Your task to perform on an android device: Search for vegetarian restaurants on Maps Image 0: 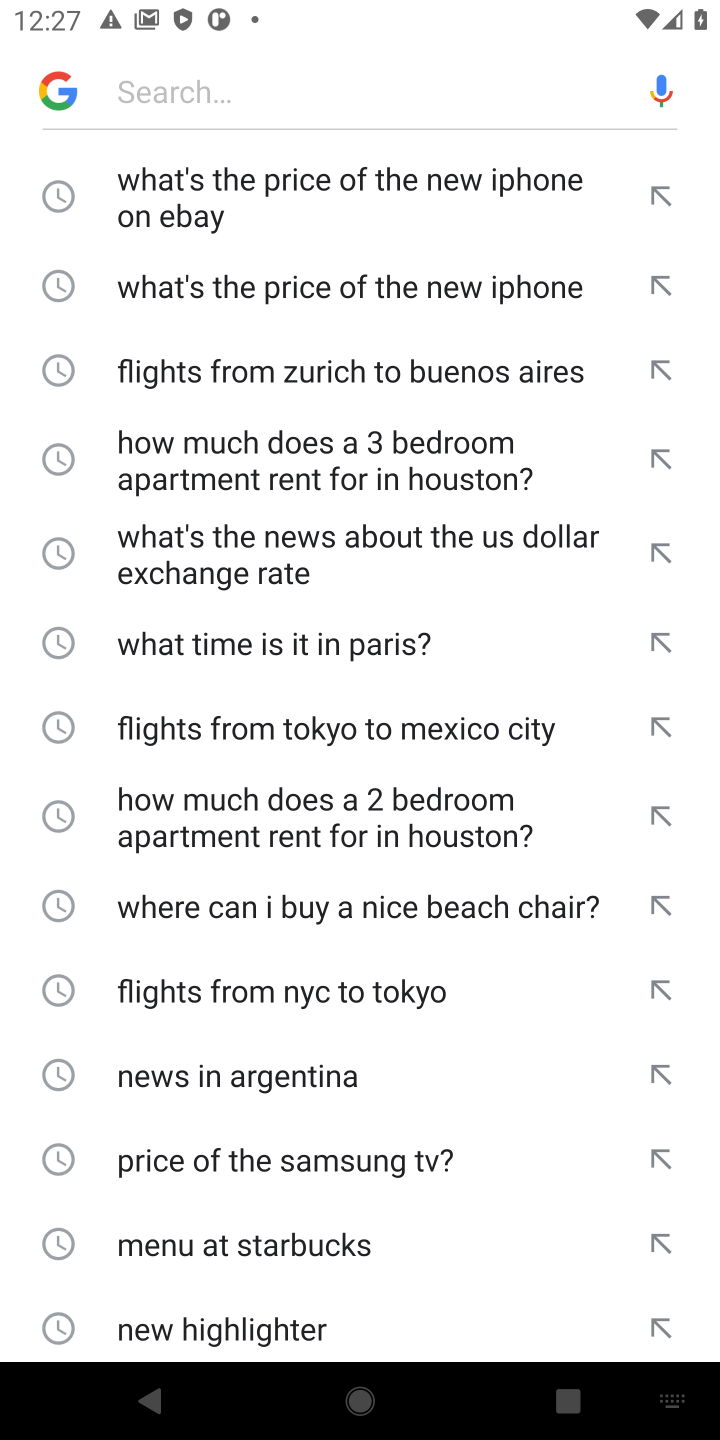
Step 0: type "vegetarian restaurants on Maps"
Your task to perform on an android device: Search for vegetarian restaurants on Maps Image 1: 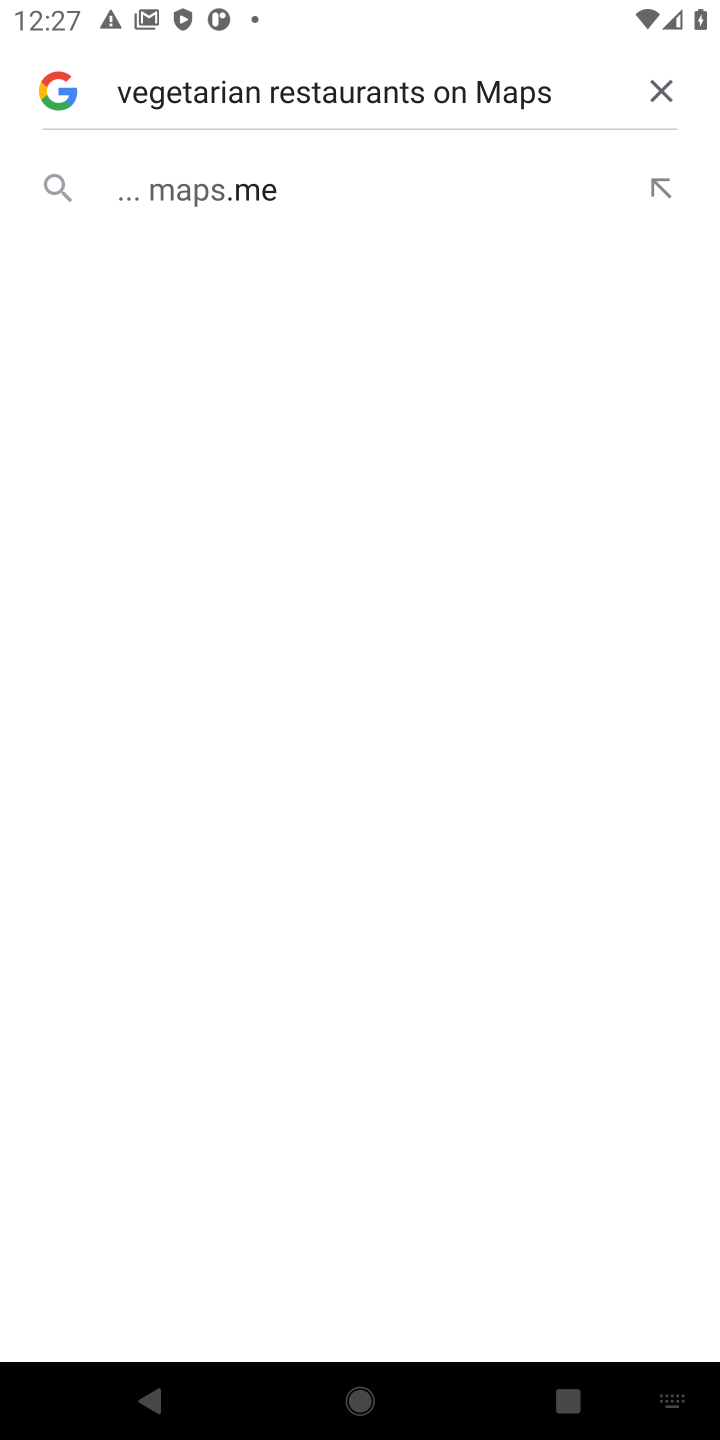
Step 1: press enter
Your task to perform on an android device: Search for vegetarian restaurants on Maps Image 2: 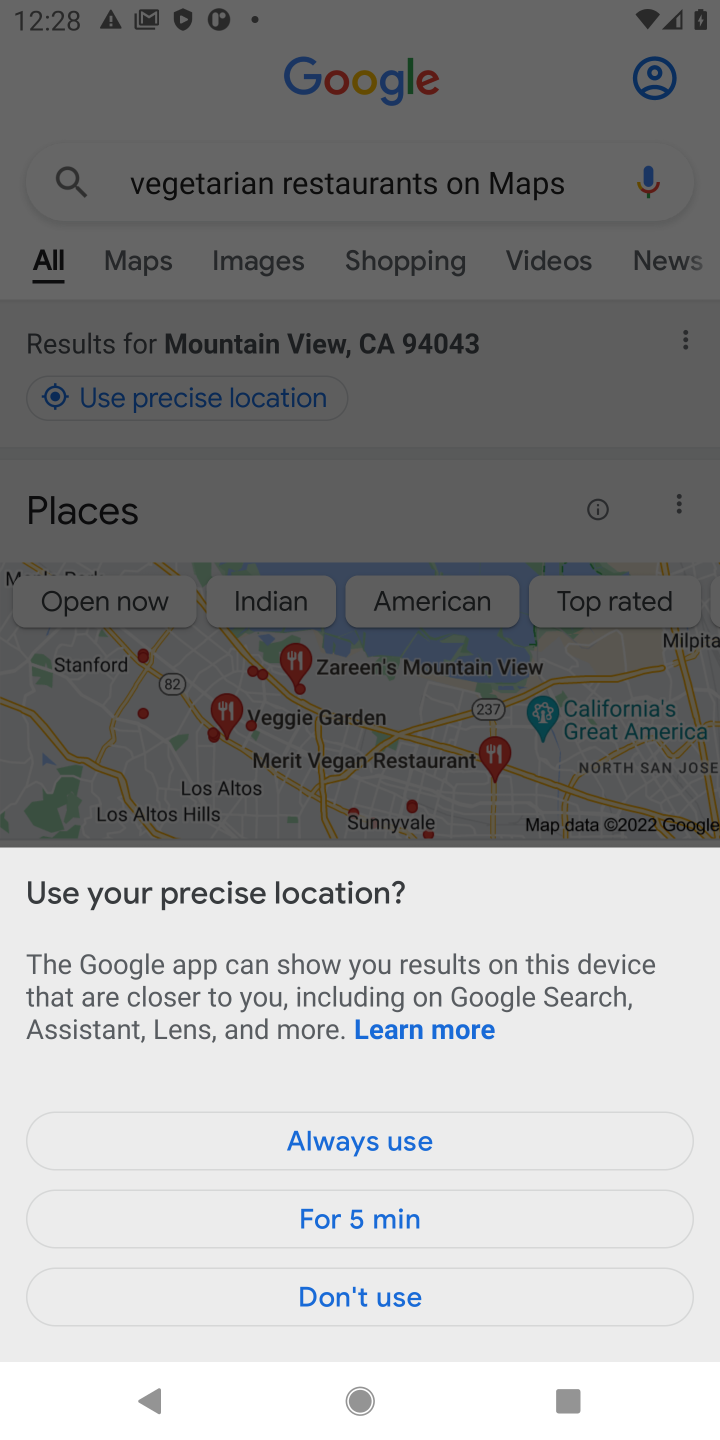
Step 2: click (405, 1145)
Your task to perform on an android device: Search for vegetarian restaurants on Maps Image 3: 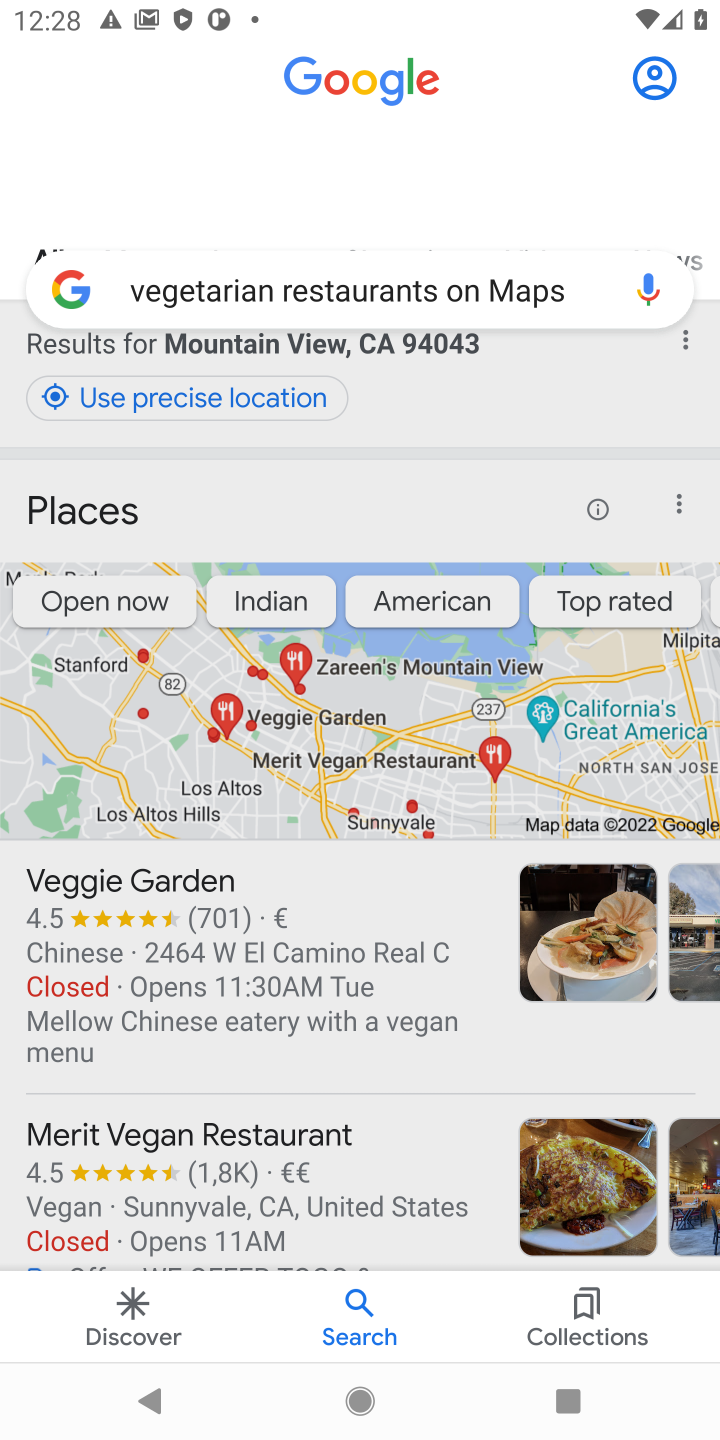
Step 3: task complete